Your task to perform on an android device: change keyboard looks Image 0: 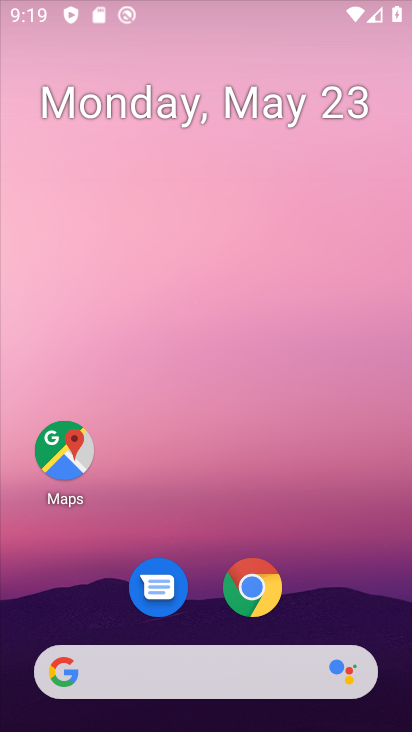
Step 0: drag from (366, 613) to (339, 85)
Your task to perform on an android device: change keyboard looks Image 1: 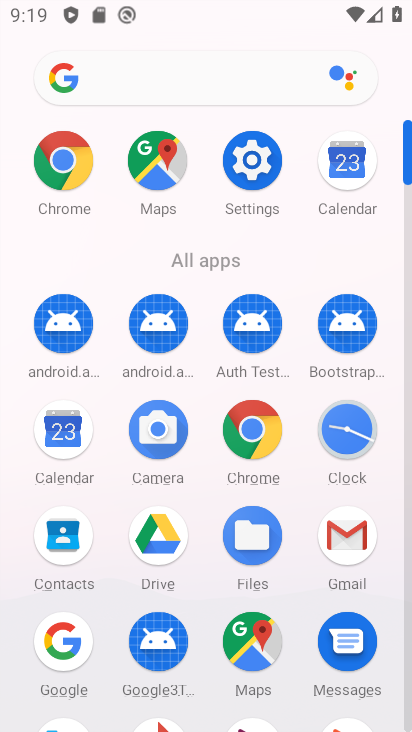
Step 1: click (243, 172)
Your task to perform on an android device: change keyboard looks Image 2: 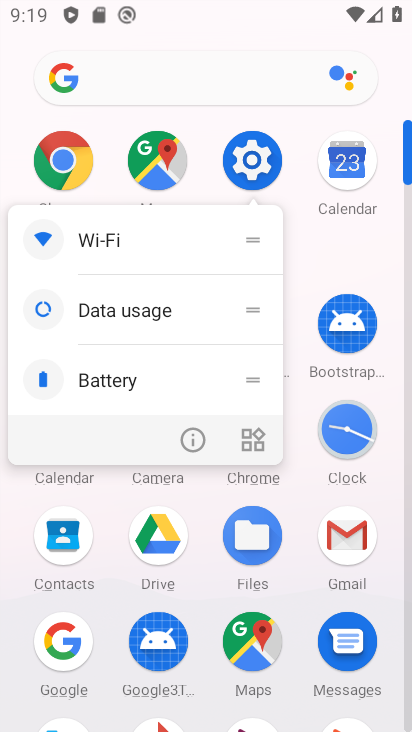
Step 2: click (243, 172)
Your task to perform on an android device: change keyboard looks Image 3: 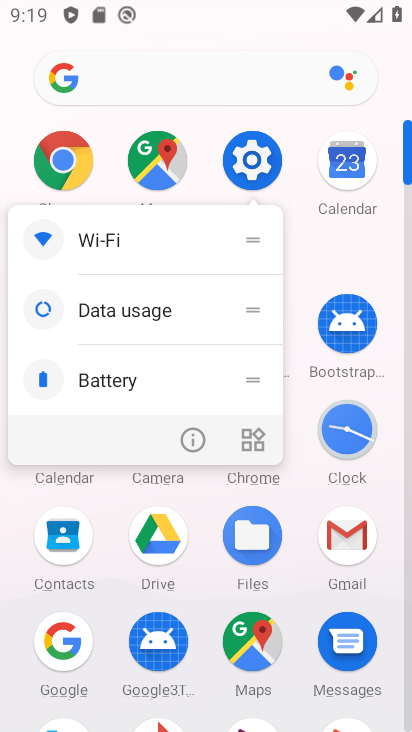
Step 3: click (243, 172)
Your task to perform on an android device: change keyboard looks Image 4: 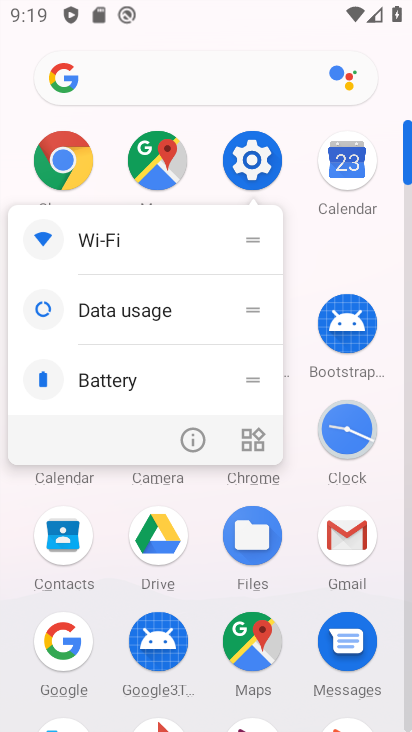
Step 4: click (243, 172)
Your task to perform on an android device: change keyboard looks Image 5: 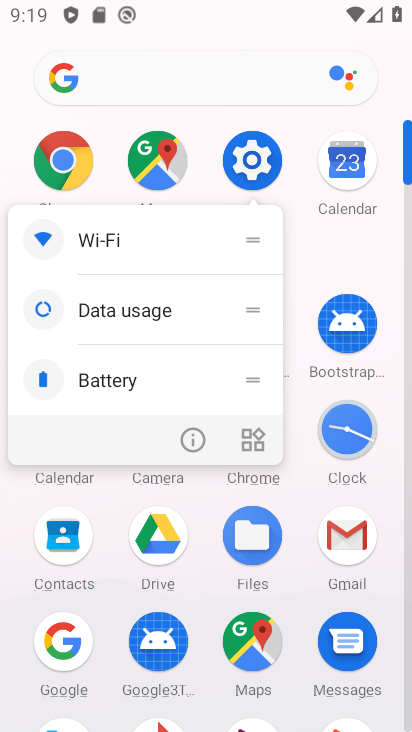
Step 5: click (251, 161)
Your task to perform on an android device: change keyboard looks Image 6: 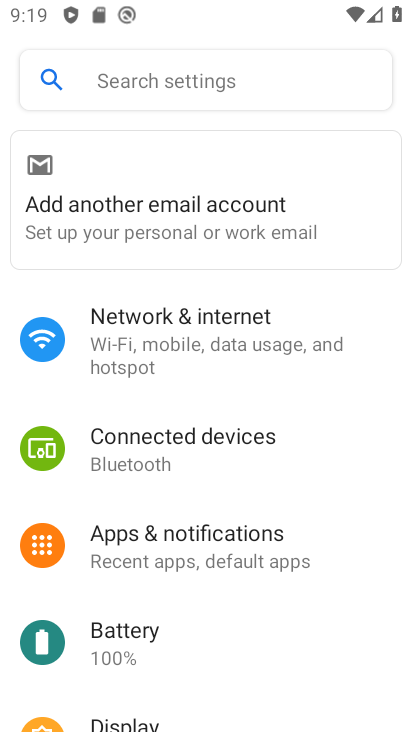
Step 6: drag from (253, 629) to (255, 145)
Your task to perform on an android device: change keyboard looks Image 7: 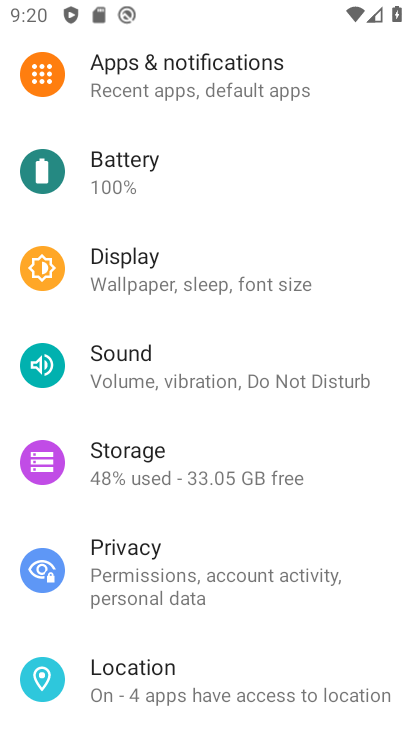
Step 7: drag from (240, 650) to (236, 111)
Your task to perform on an android device: change keyboard looks Image 8: 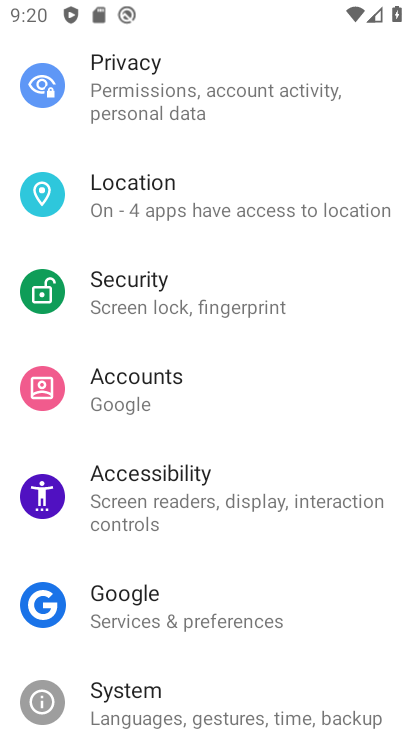
Step 8: drag from (246, 601) to (192, 86)
Your task to perform on an android device: change keyboard looks Image 9: 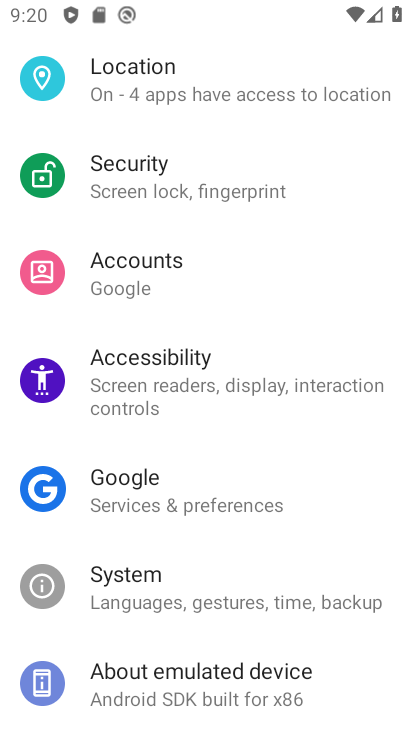
Step 9: click (129, 606)
Your task to perform on an android device: change keyboard looks Image 10: 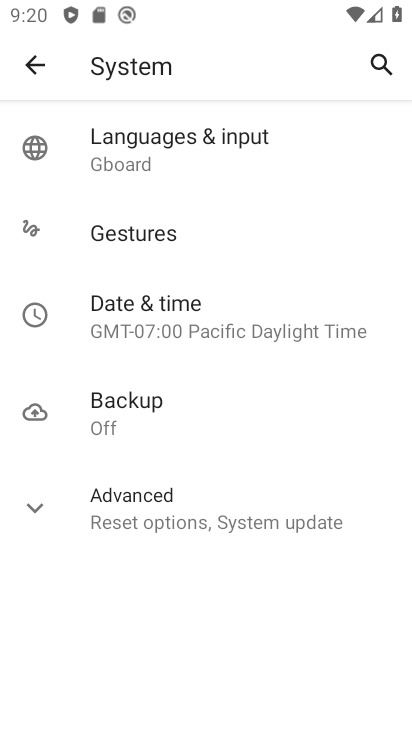
Step 10: click (112, 134)
Your task to perform on an android device: change keyboard looks Image 11: 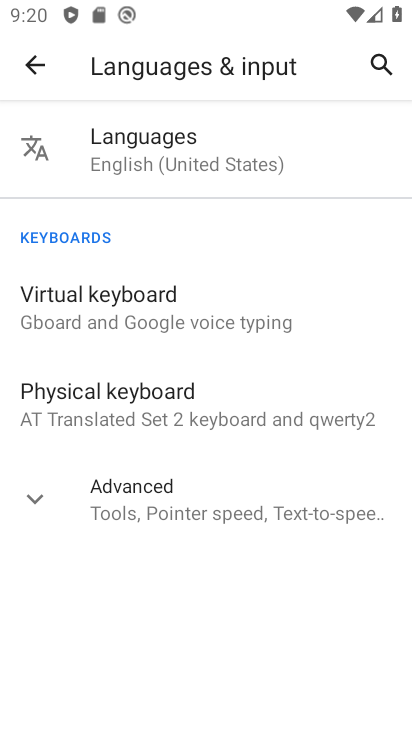
Step 11: click (90, 313)
Your task to perform on an android device: change keyboard looks Image 12: 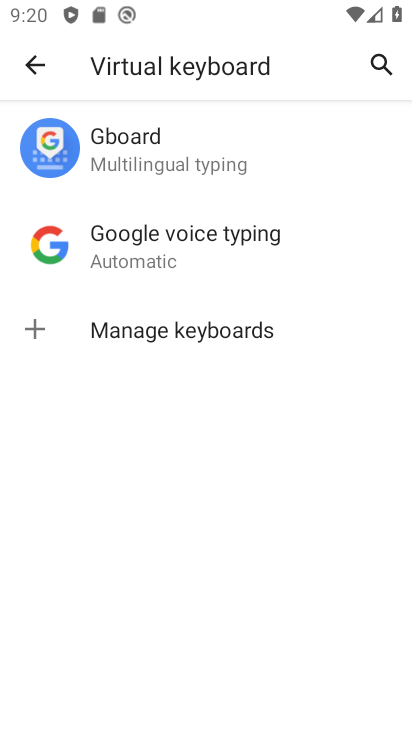
Step 12: click (135, 144)
Your task to perform on an android device: change keyboard looks Image 13: 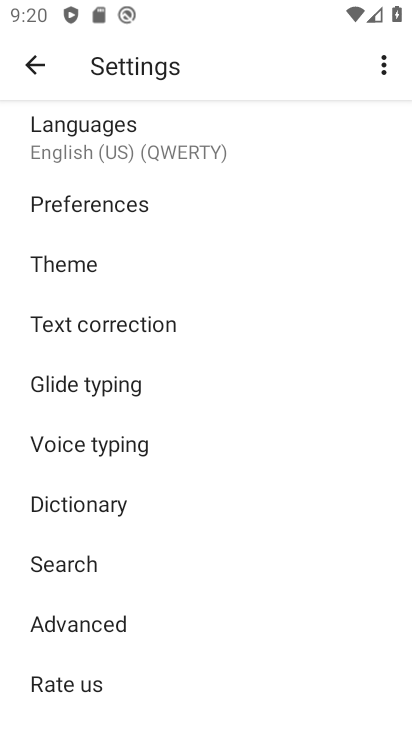
Step 13: click (43, 268)
Your task to perform on an android device: change keyboard looks Image 14: 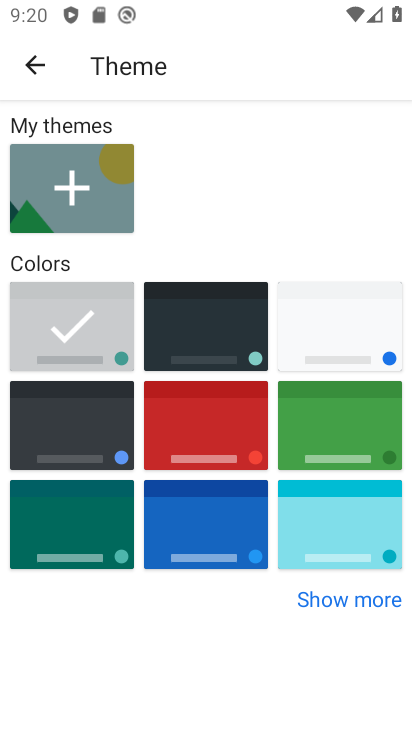
Step 14: click (206, 347)
Your task to perform on an android device: change keyboard looks Image 15: 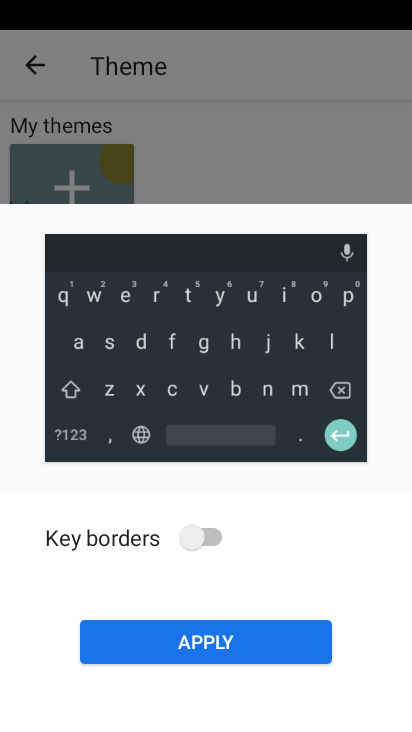
Step 15: click (239, 637)
Your task to perform on an android device: change keyboard looks Image 16: 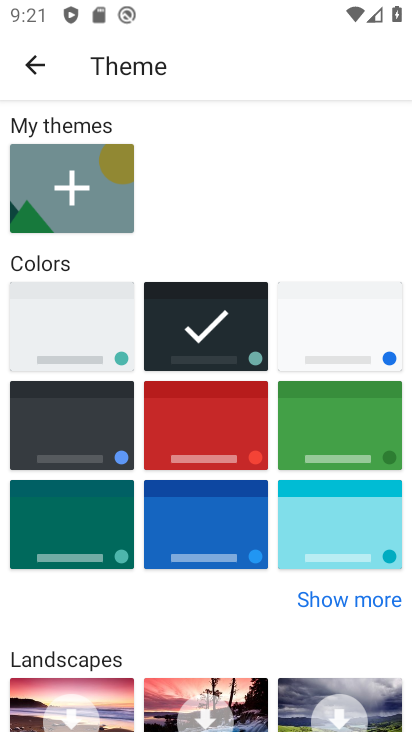
Step 16: task complete